Your task to perform on an android device: make emails show in primary in the gmail app Image 0: 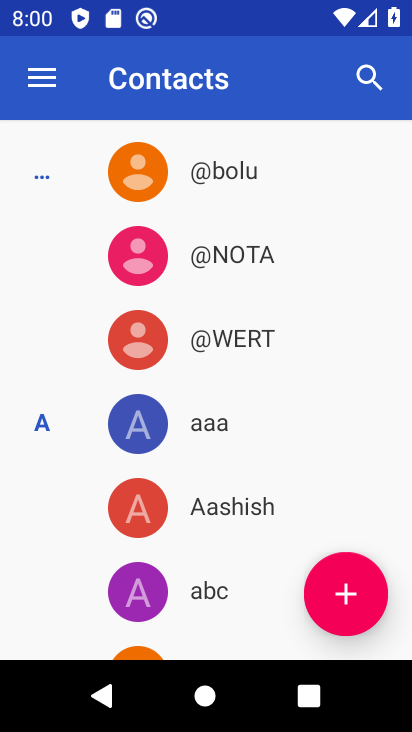
Step 0: press home button
Your task to perform on an android device: make emails show in primary in the gmail app Image 1: 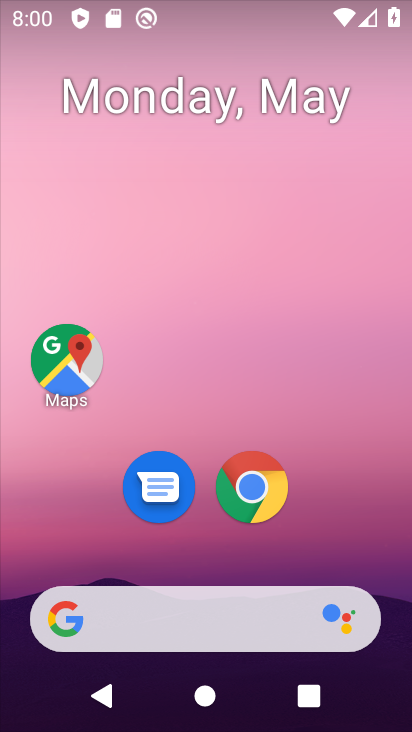
Step 1: drag from (345, 535) to (295, 82)
Your task to perform on an android device: make emails show in primary in the gmail app Image 2: 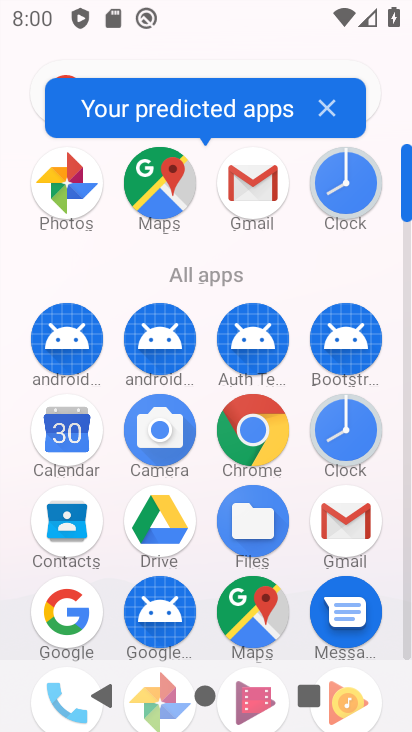
Step 2: click (253, 192)
Your task to perform on an android device: make emails show in primary in the gmail app Image 3: 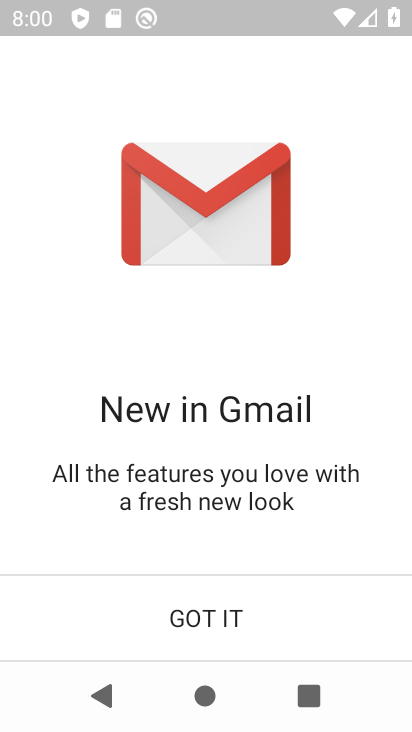
Step 3: click (268, 613)
Your task to perform on an android device: make emails show in primary in the gmail app Image 4: 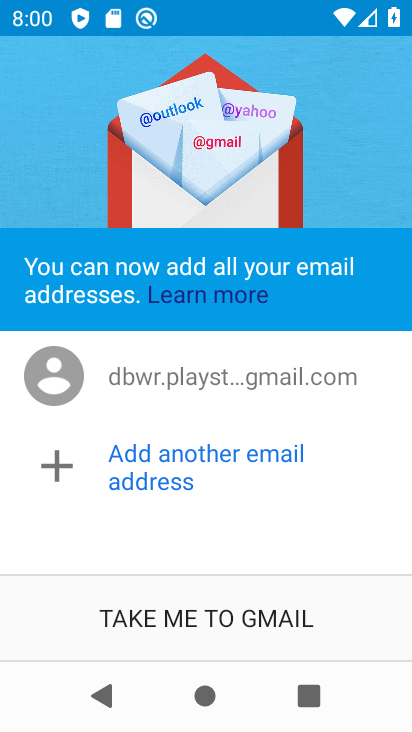
Step 4: click (259, 608)
Your task to perform on an android device: make emails show in primary in the gmail app Image 5: 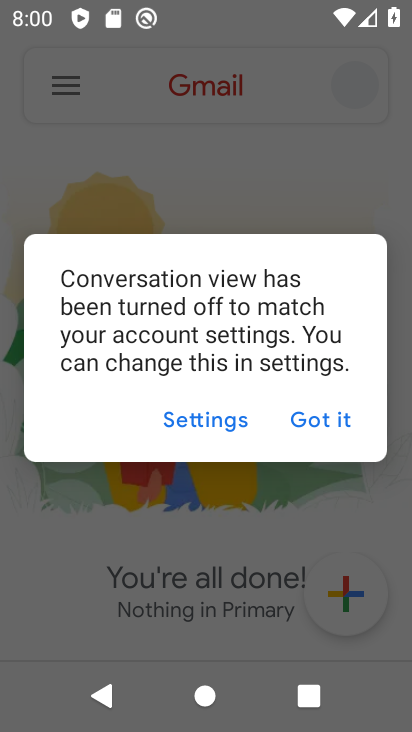
Step 5: click (334, 420)
Your task to perform on an android device: make emails show in primary in the gmail app Image 6: 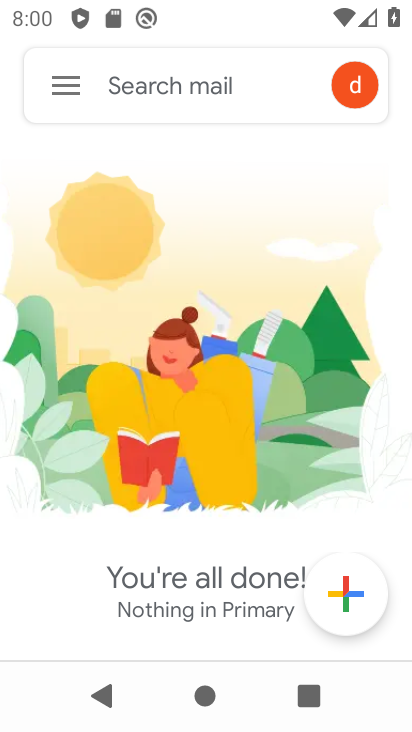
Step 6: click (54, 66)
Your task to perform on an android device: make emails show in primary in the gmail app Image 7: 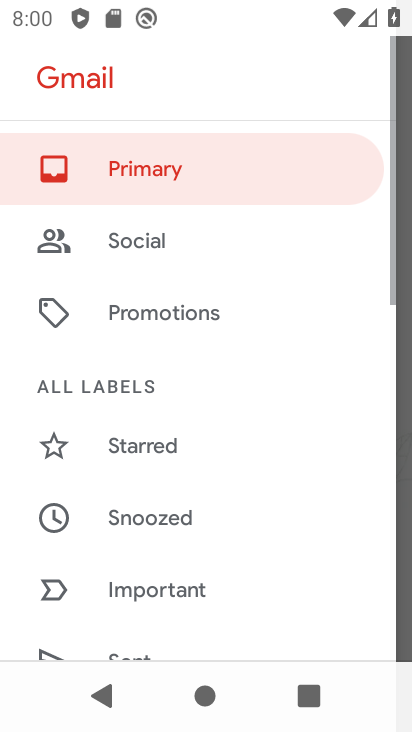
Step 7: drag from (197, 494) to (145, 83)
Your task to perform on an android device: make emails show in primary in the gmail app Image 8: 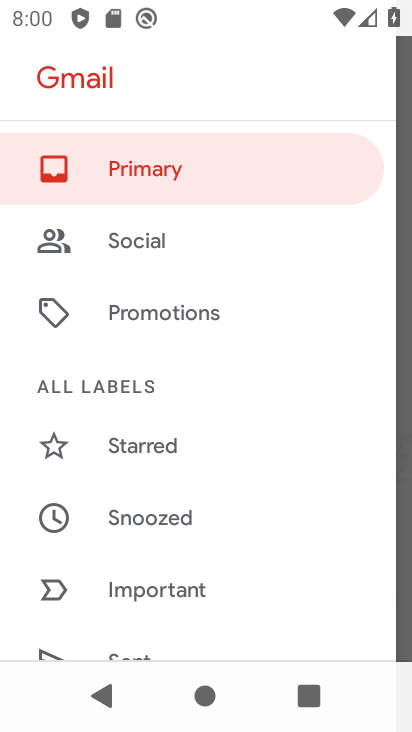
Step 8: drag from (258, 562) to (385, 171)
Your task to perform on an android device: make emails show in primary in the gmail app Image 9: 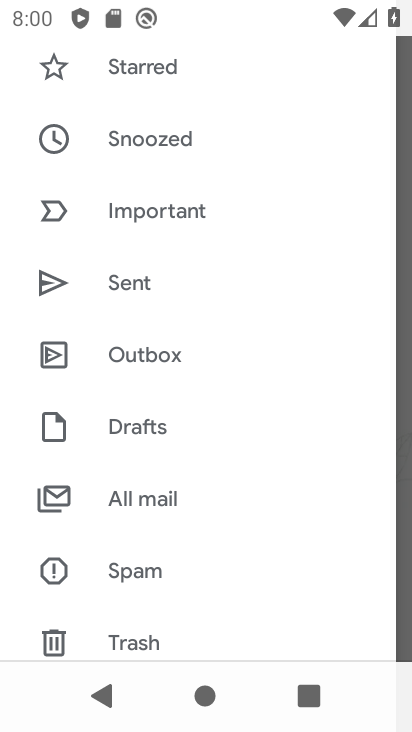
Step 9: drag from (227, 579) to (173, 126)
Your task to perform on an android device: make emails show in primary in the gmail app Image 10: 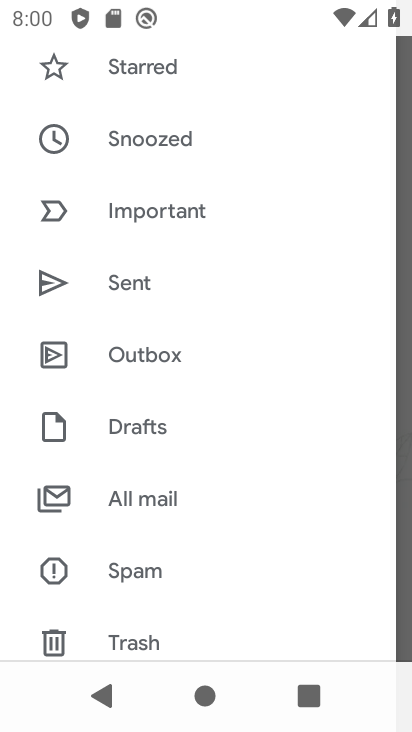
Step 10: drag from (174, 593) to (206, 56)
Your task to perform on an android device: make emails show in primary in the gmail app Image 11: 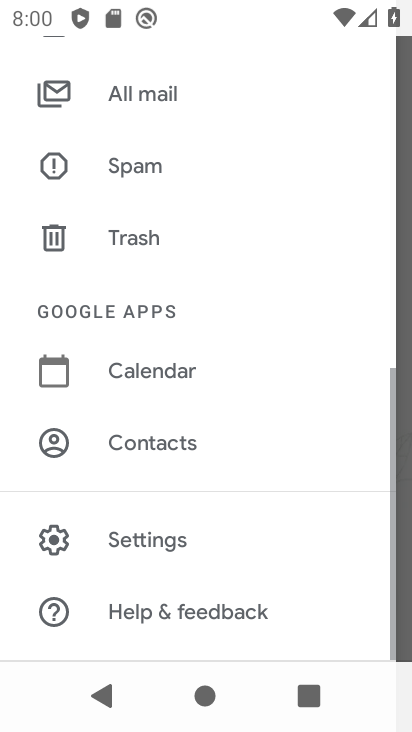
Step 11: click (162, 525)
Your task to perform on an android device: make emails show in primary in the gmail app Image 12: 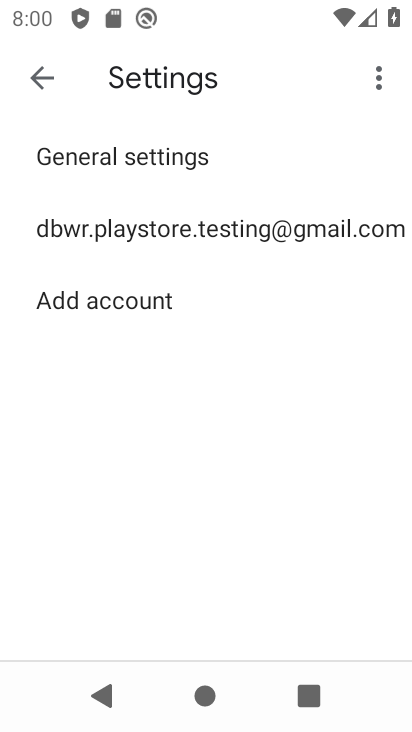
Step 12: click (217, 231)
Your task to perform on an android device: make emails show in primary in the gmail app Image 13: 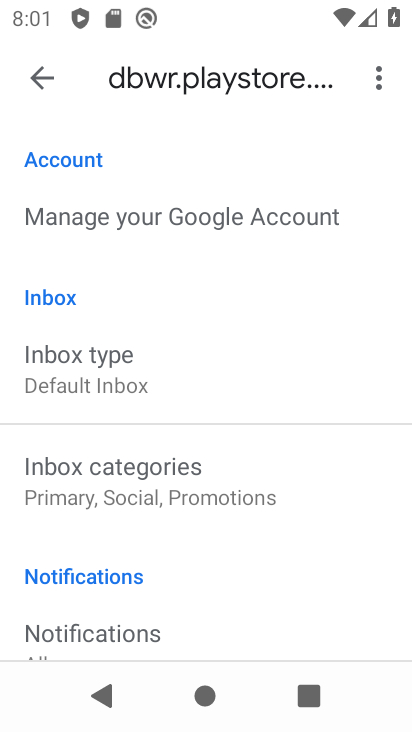
Step 13: click (180, 464)
Your task to perform on an android device: make emails show in primary in the gmail app Image 14: 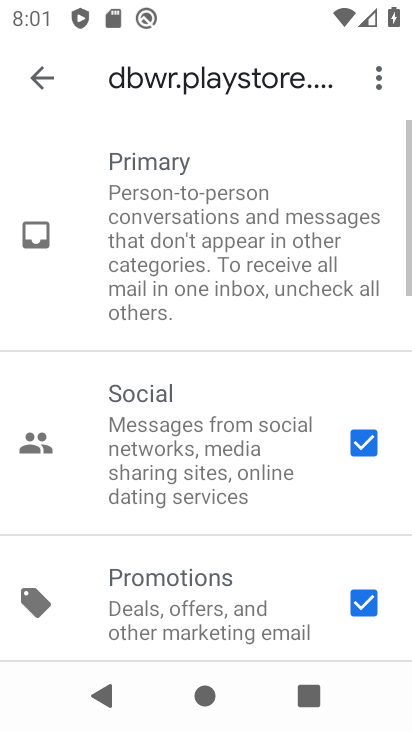
Step 14: click (354, 431)
Your task to perform on an android device: make emails show in primary in the gmail app Image 15: 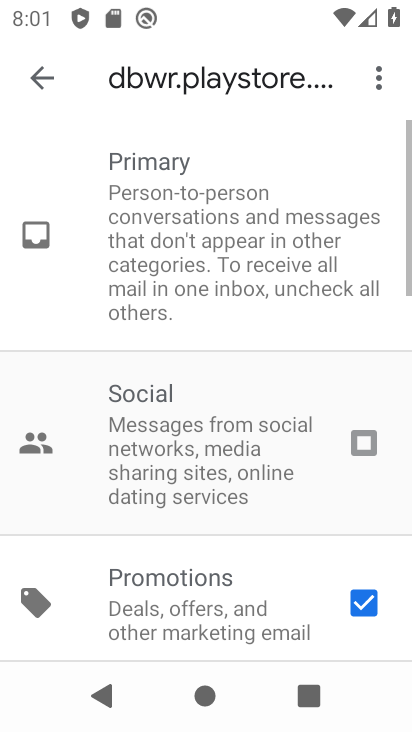
Step 15: click (360, 595)
Your task to perform on an android device: make emails show in primary in the gmail app Image 16: 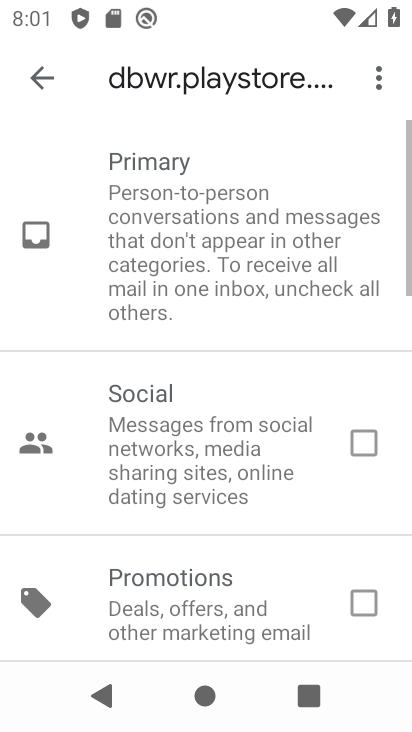
Step 16: task complete